Your task to perform on an android device: open a bookmark in the chrome app Image 0: 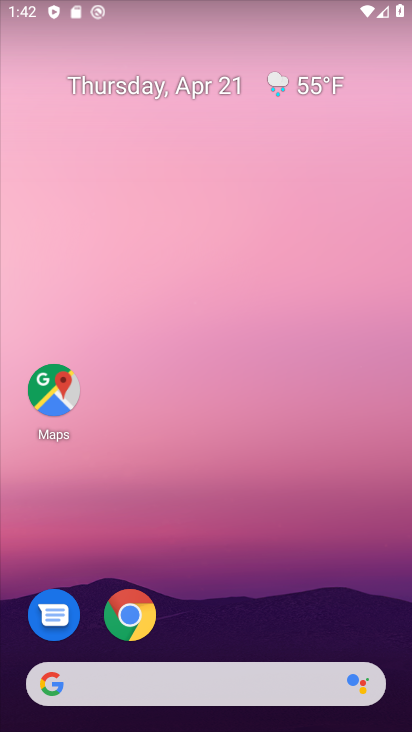
Step 0: click (124, 620)
Your task to perform on an android device: open a bookmark in the chrome app Image 1: 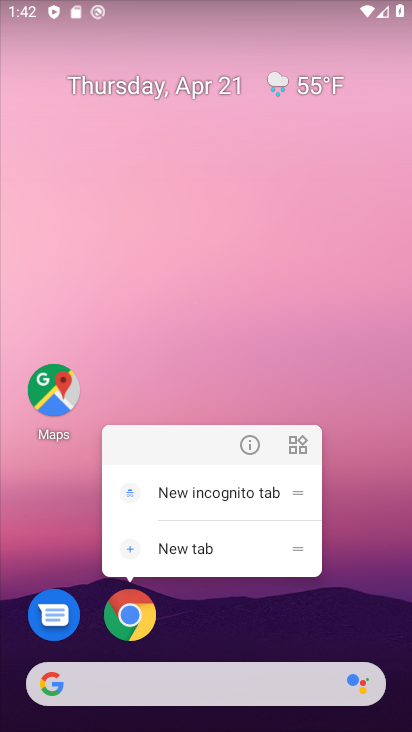
Step 1: click (124, 620)
Your task to perform on an android device: open a bookmark in the chrome app Image 2: 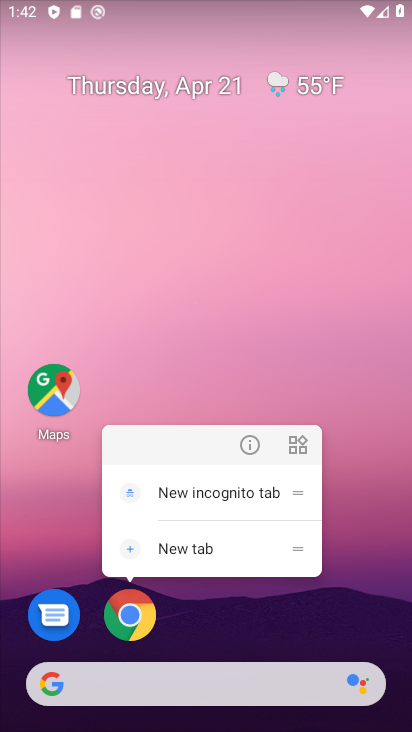
Step 2: click (124, 620)
Your task to perform on an android device: open a bookmark in the chrome app Image 3: 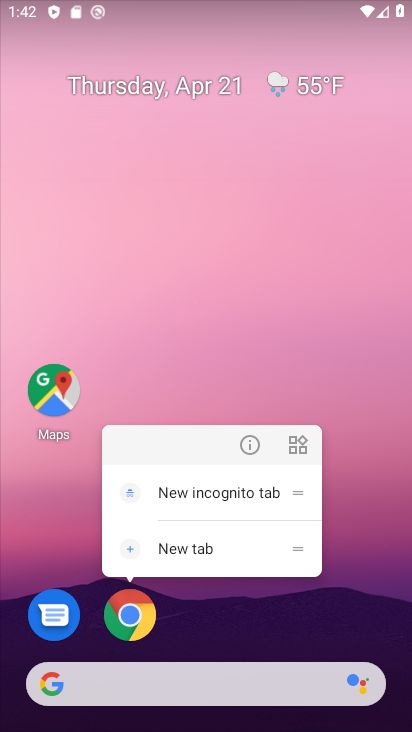
Step 3: click (124, 620)
Your task to perform on an android device: open a bookmark in the chrome app Image 4: 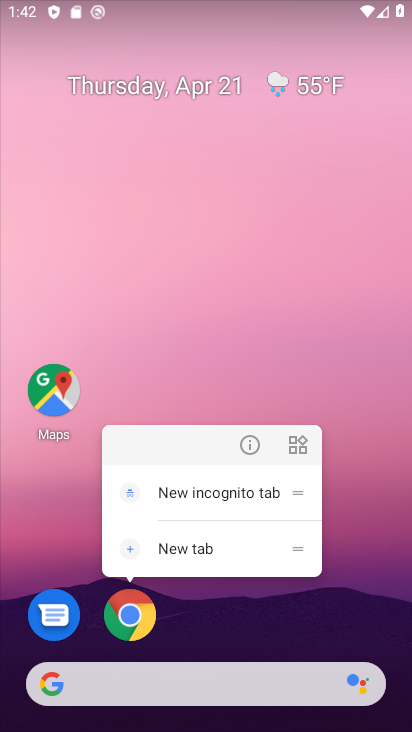
Step 4: click (124, 620)
Your task to perform on an android device: open a bookmark in the chrome app Image 5: 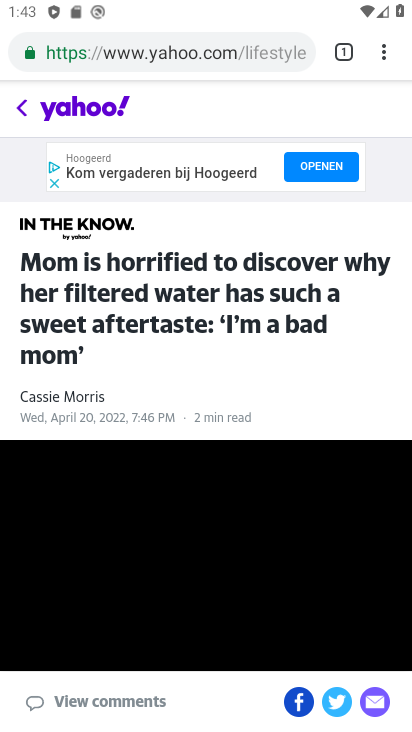
Step 5: click (354, 48)
Your task to perform on an android device: open a bookmark in the chrome app Image 6: 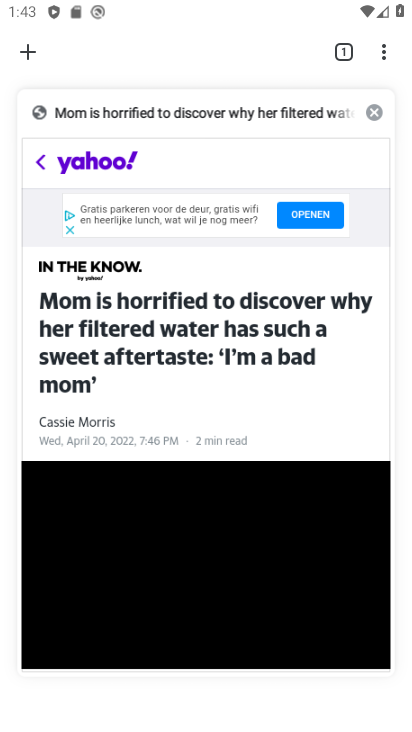
Step 6: click (374, 115)
Your task to perform on an android device: open a bookmark in the chrome app Image 7: 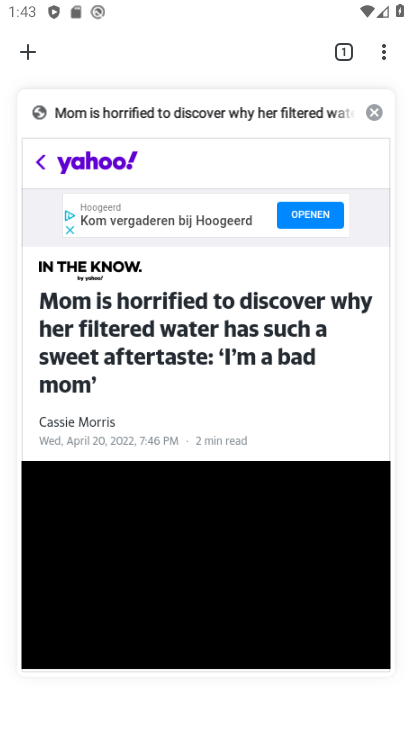
Step 7: click (374, 115)
Your task to perform on an android device: open a bookmark in the chrome app Image 8: 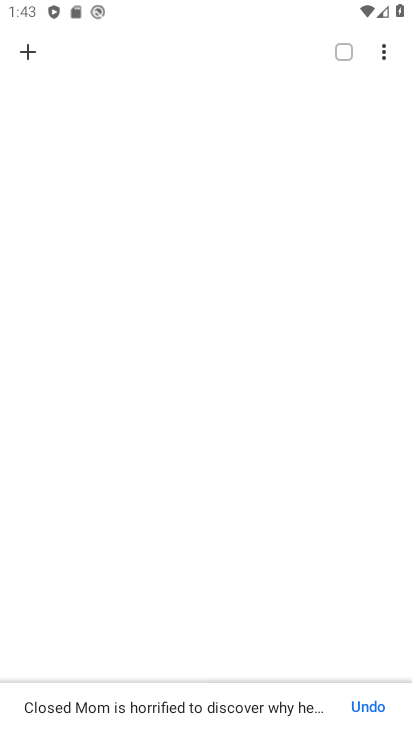
Step 8: click (376, 108)
Your task to perform on an android device: open a bookmark in the chrome app Image 9: 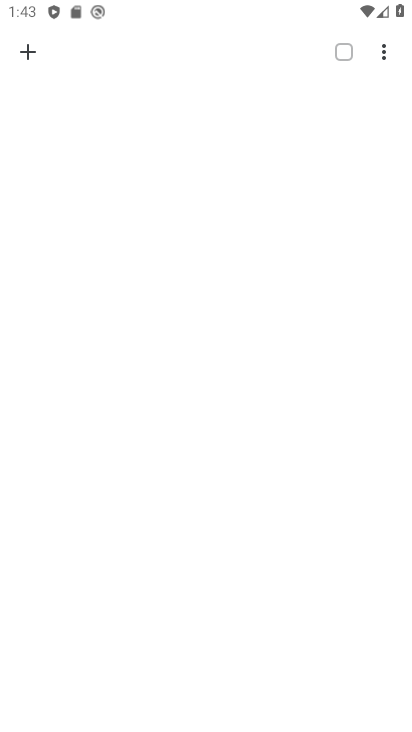
Step 9: click (387, 49)
Your task to perform on an android device: open a bookmark in the chrome app Image 10: 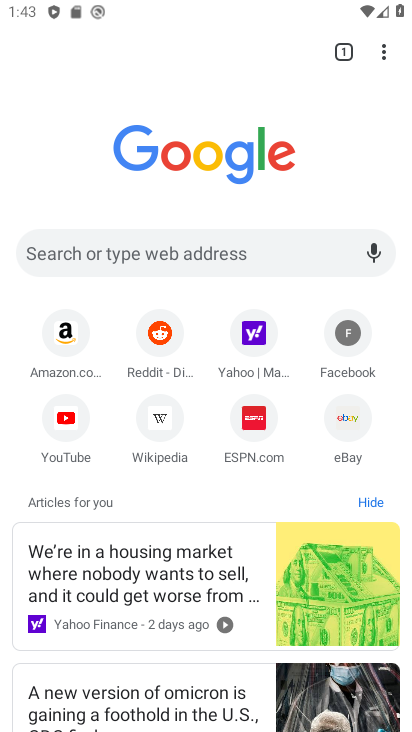
Step 10: click (387, 49)
Your task to perform on an android device: open a bookmark in the chrome app Image 11: 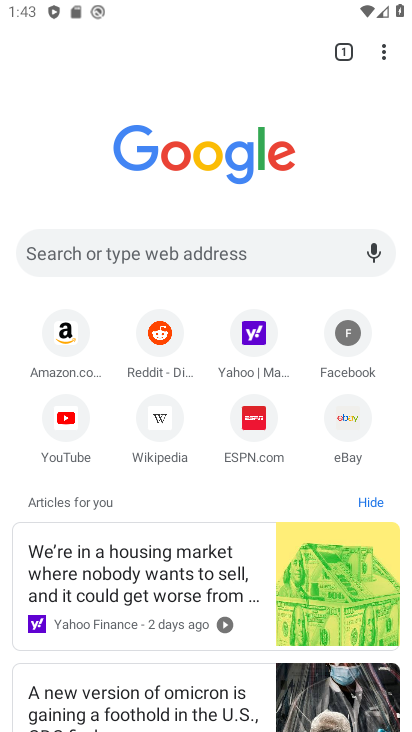
Step 11: click (387, 49)
Your task to perform on an android device: open a bookmark in the chrome app Image 12: 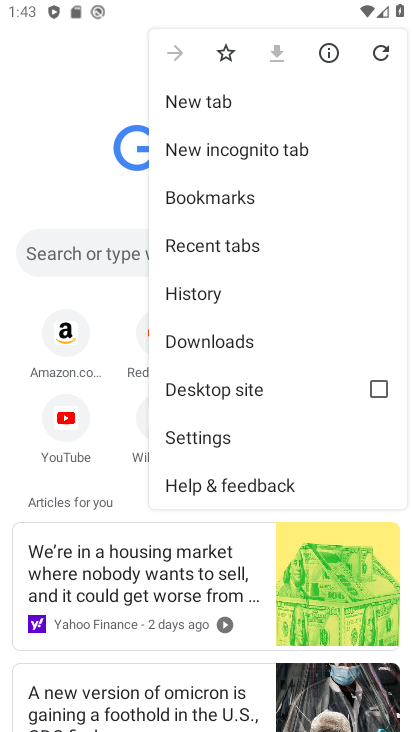
Step 12: click (217, 201)
Your task to perform on an android device: open a bookmark in the chrome app Image 13: 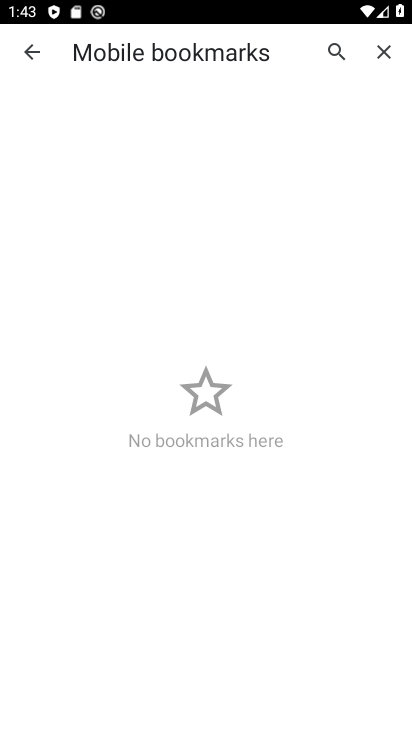
Step 13: click (196, 201)
Your task to perform on an android device: open a bookmark in the chrome app Image 14: 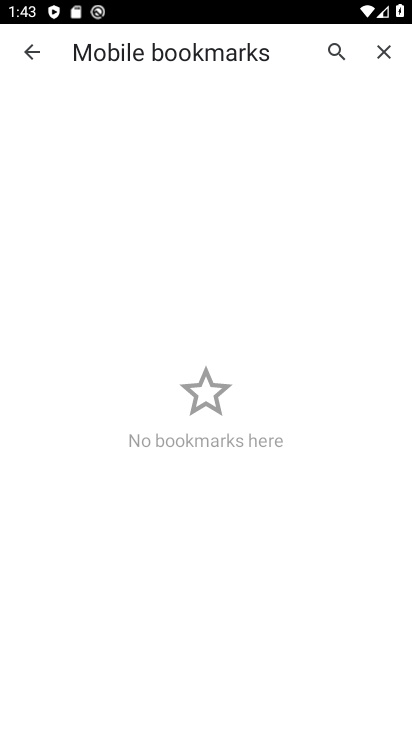
Step 14: task complete